Your task to perform on an android device: Open the stopwatch Image 0: 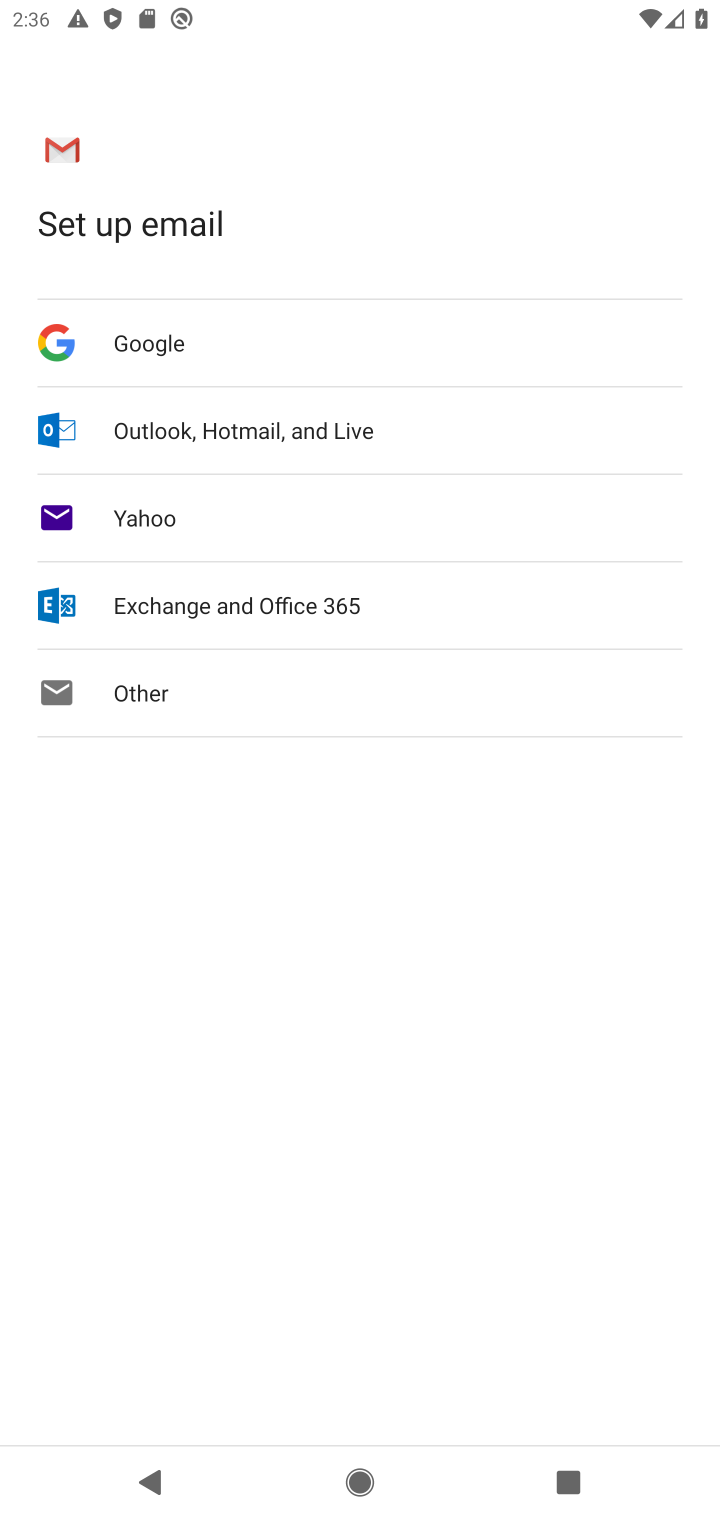
Step 0: press home button
Your task to perform on an android device: Open the stopwatch Image 1: 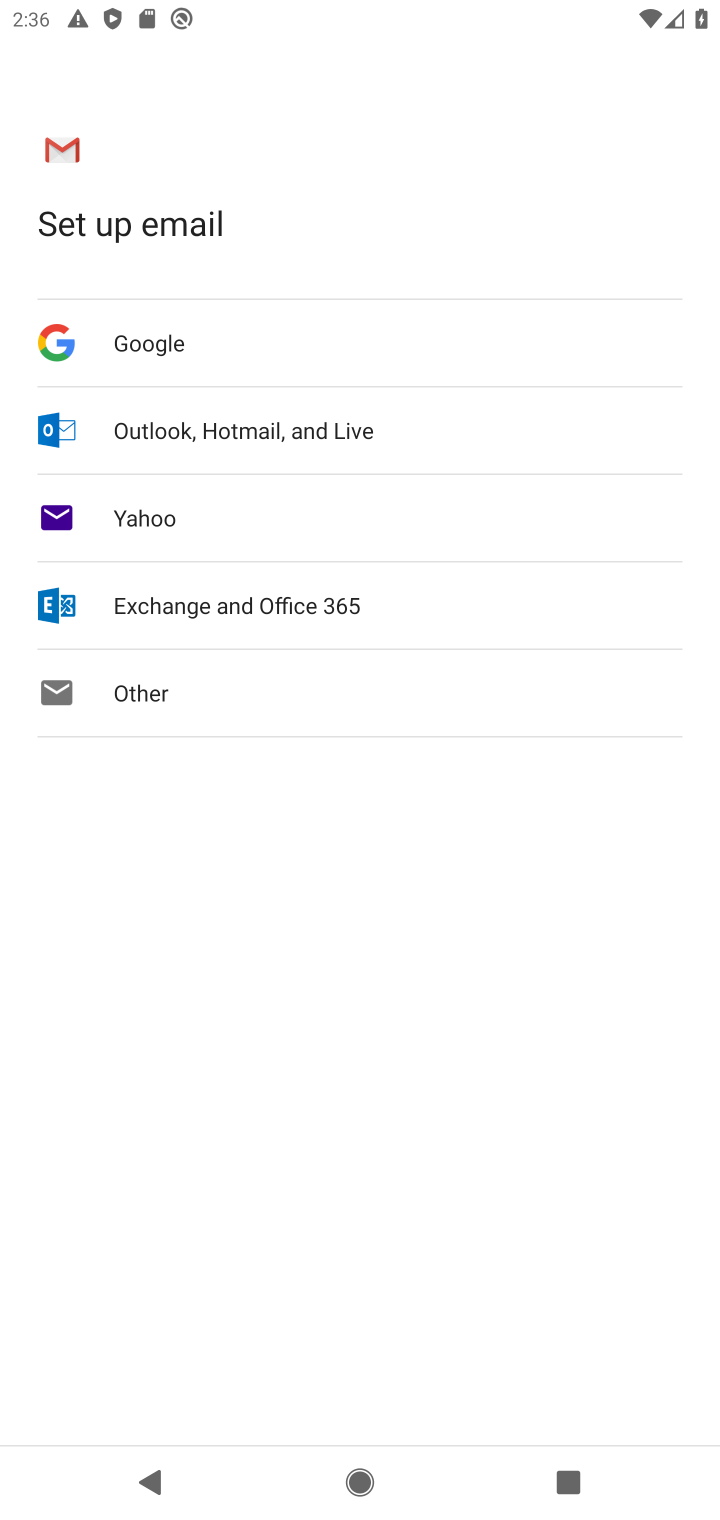
Step 1: drag from (373, 1312) to (469, 2)
Your task to perform on an android device: Open the stopwatch Image 2: 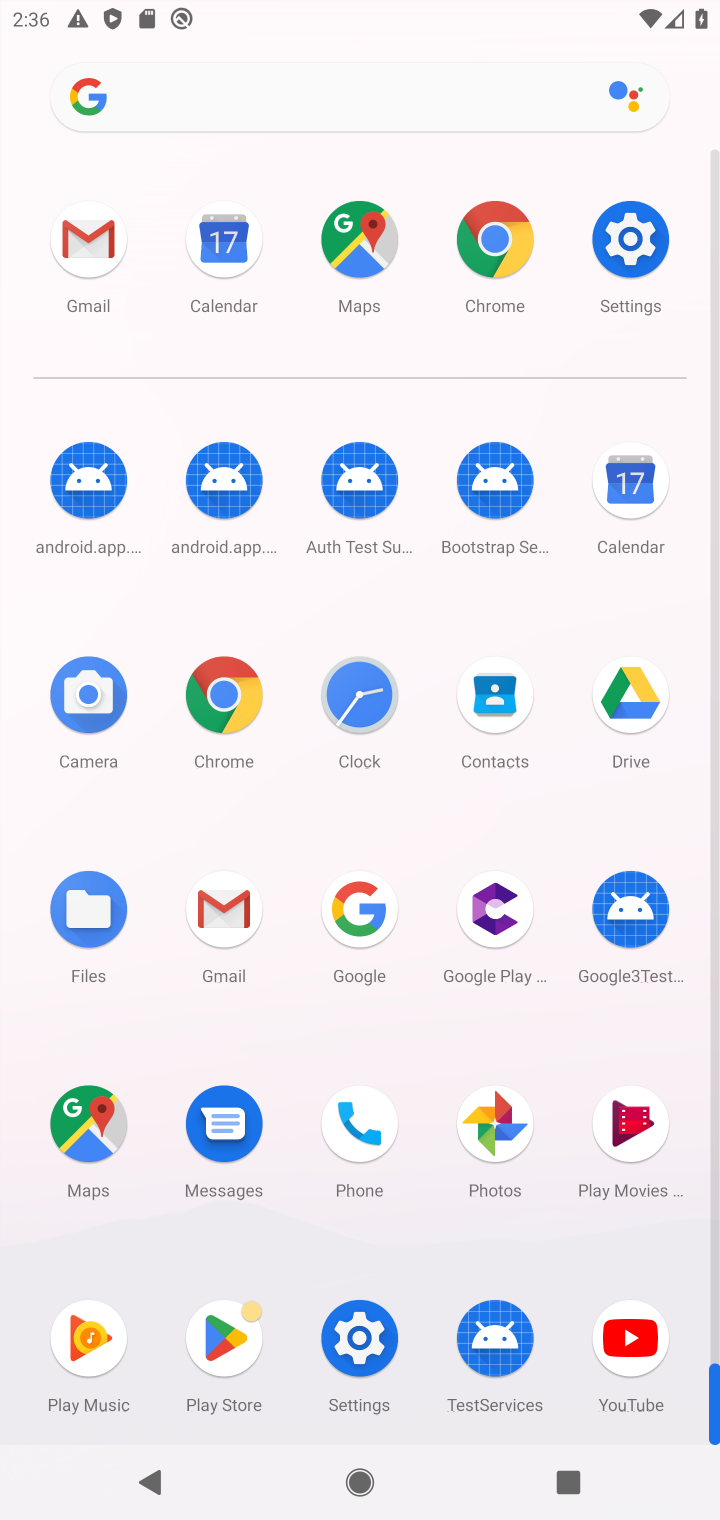
Step 2: click (350, 707)
Your task to perform on an android device: Open the stopwatch Image 3: 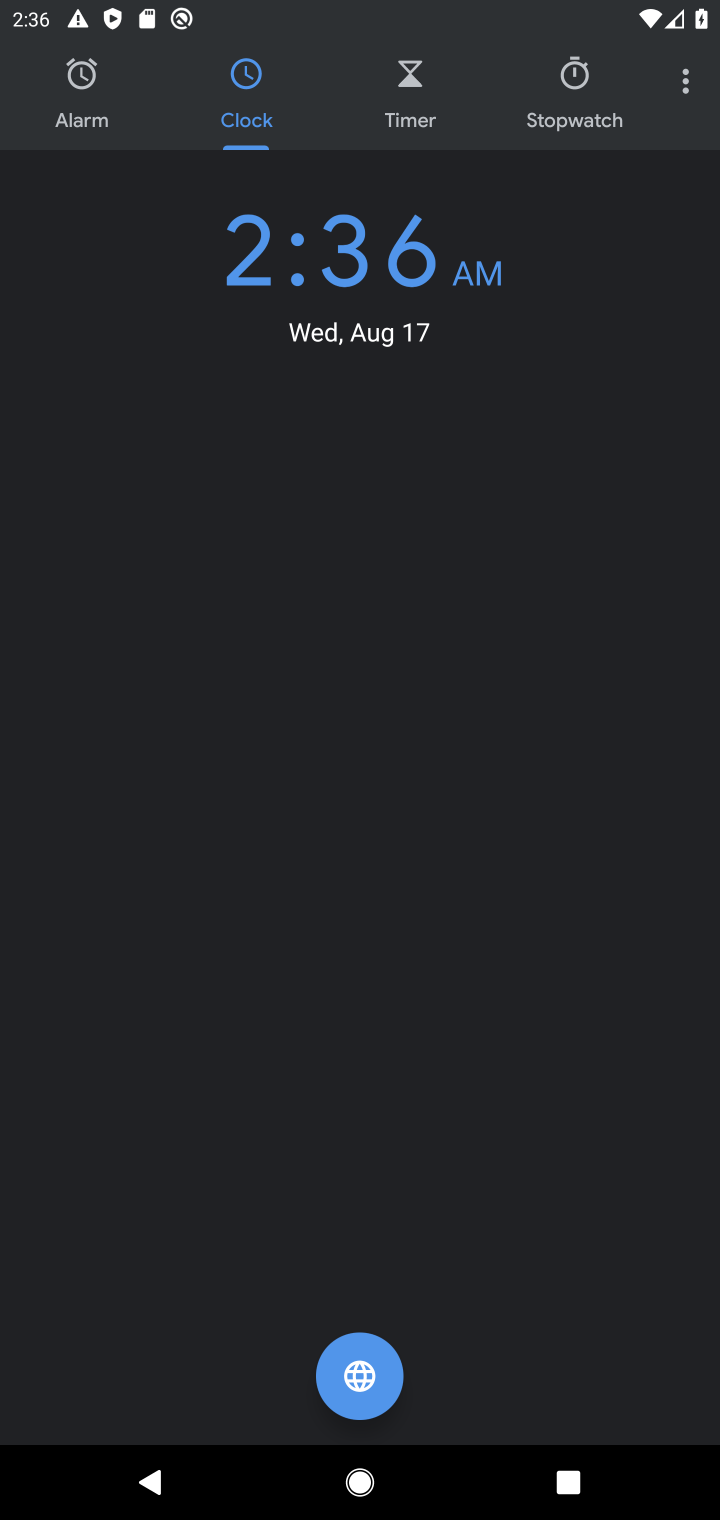
Step 3: click (558, 97)
Your task to perform on an android device: Open the stopwatch Image 4: 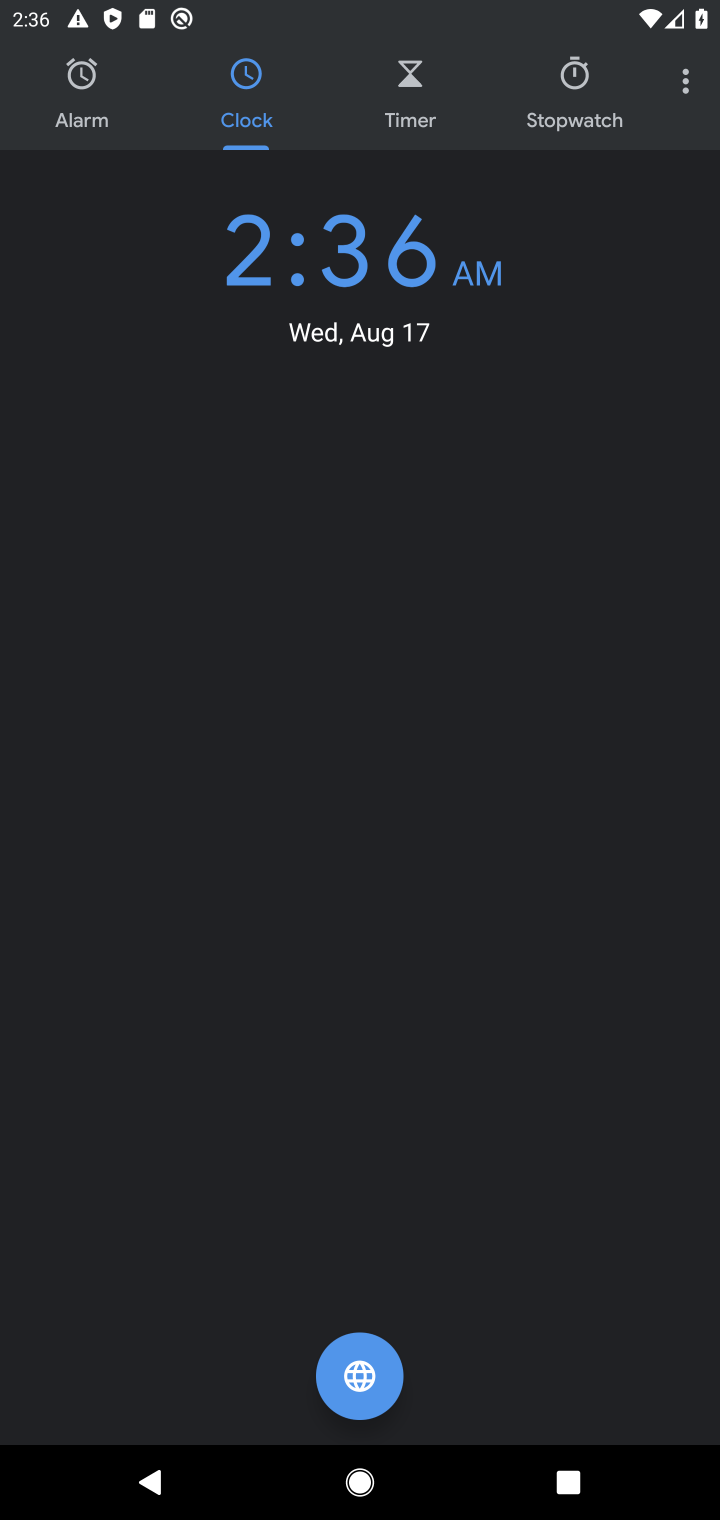
Step 4: click (569, 120)
Your task to perform on an android device: Open the stopwatch Image 5: 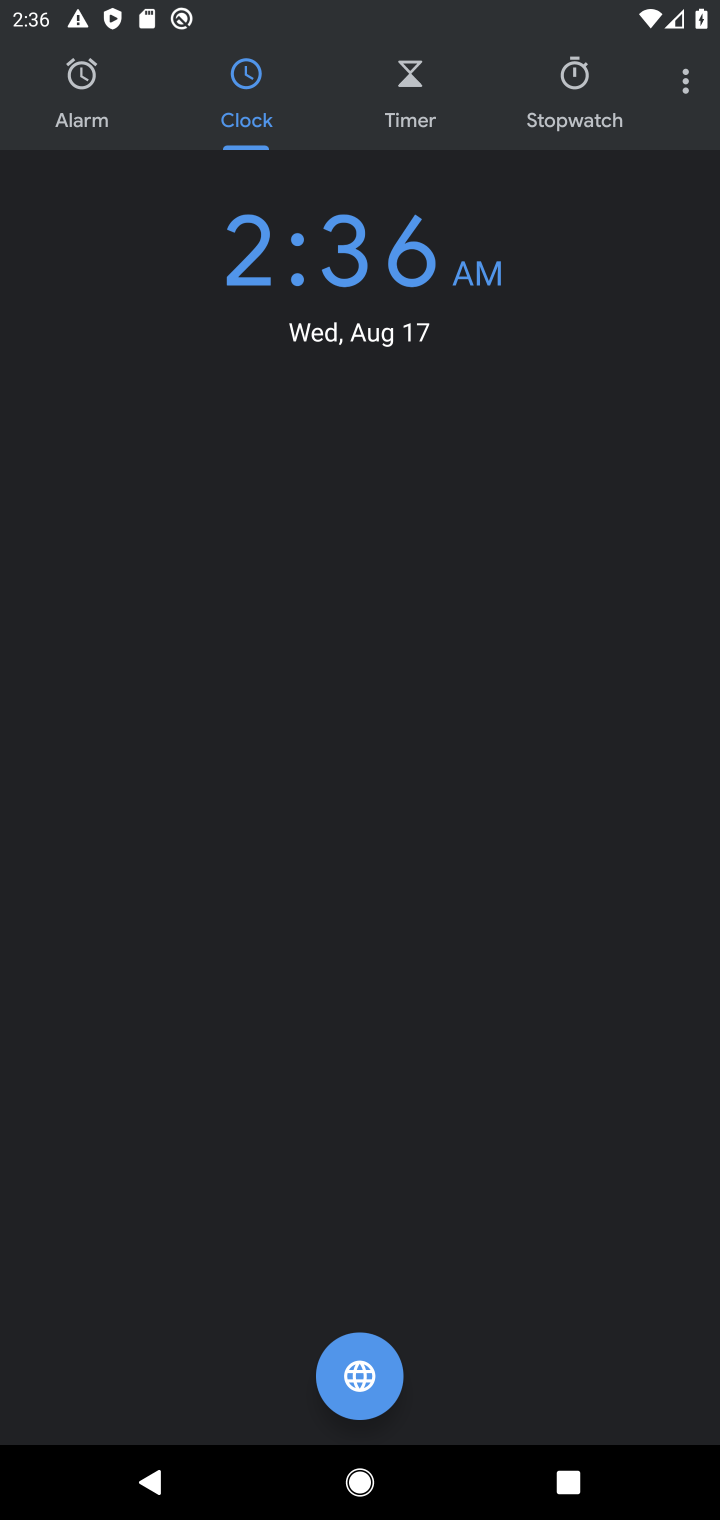
Step 5: click (588, 85)
Your task to perform on an android device: Open the stopwatch Image 6: 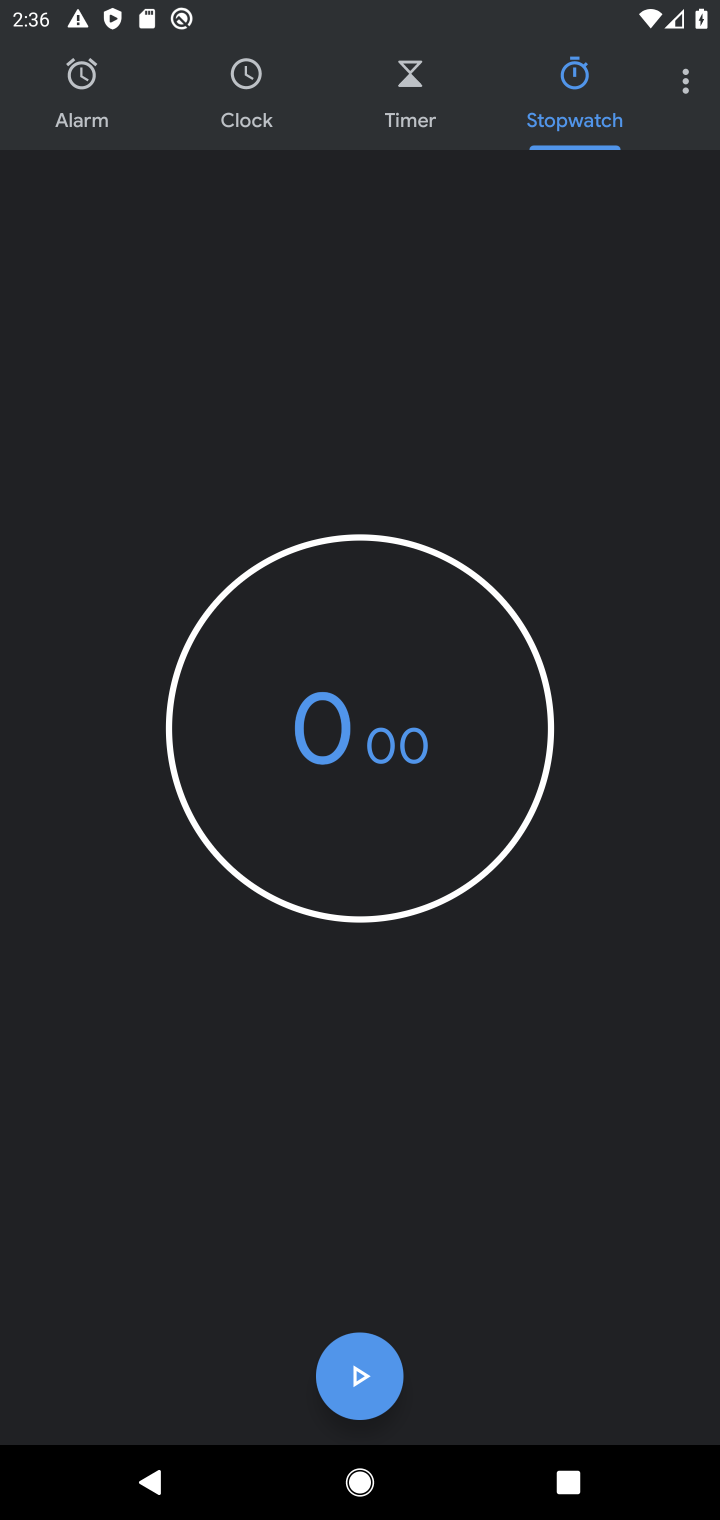
Step 6: click (338, 1388)
Your task to perform on an android device: Open the stopwatch Image 7: 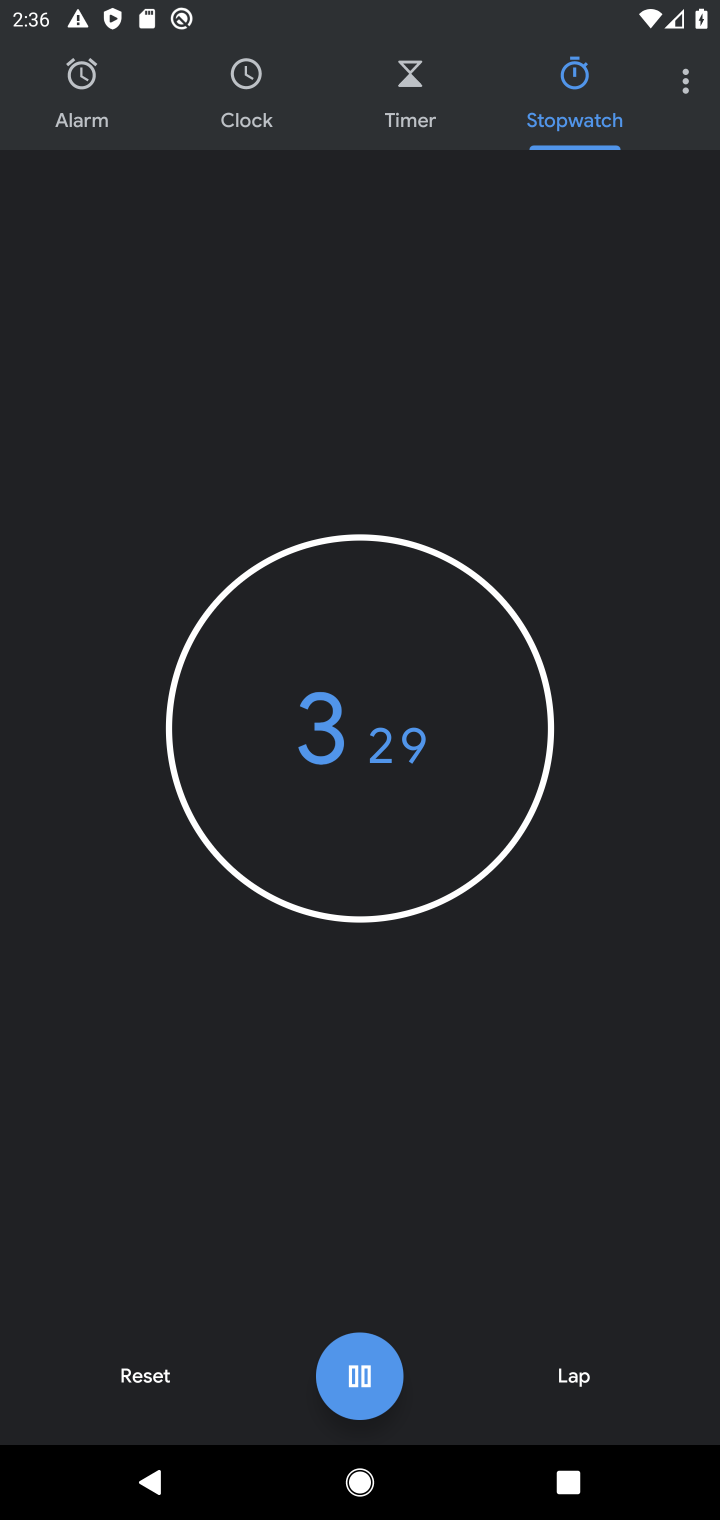
Step 7: task complete